Your task to perform on an android device: Go to battery settings Image 0: 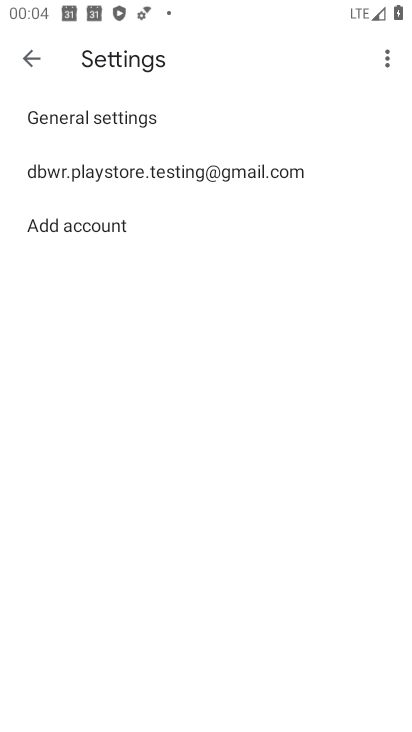
Step 0: press home button
Your task to perform on an android device: Go to battery settings Image 1: 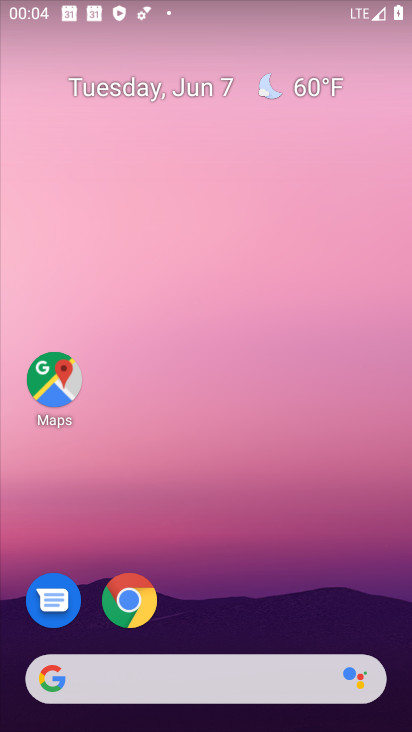
Step 1: drag from (227, 729) to (238, 67)
Your task to perform on an android device: Go to battery settings Image 2: 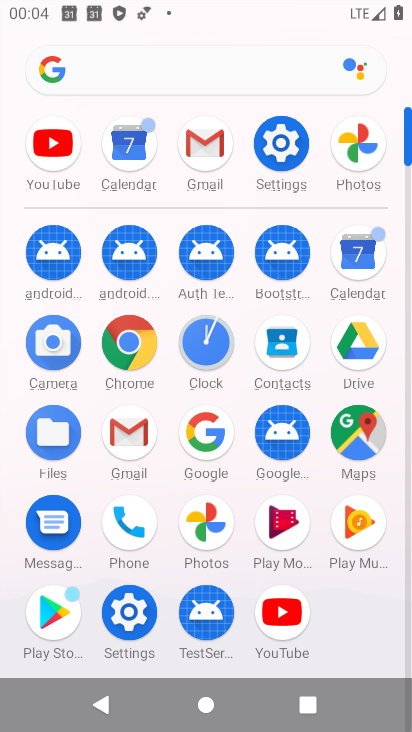
Step 2: click (271, 140)
Your task to perform on an android device: Go to battery settings Image 3: 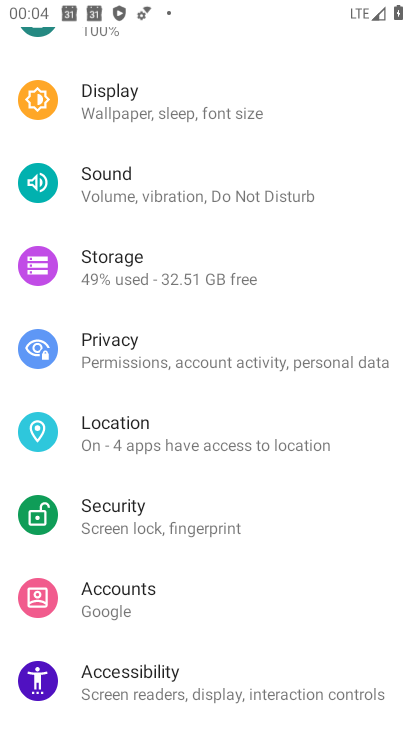
Step 3: drag from (214, 96) to (221, 523)
Your task to perform on an android device: Go to battery settings Image 4: 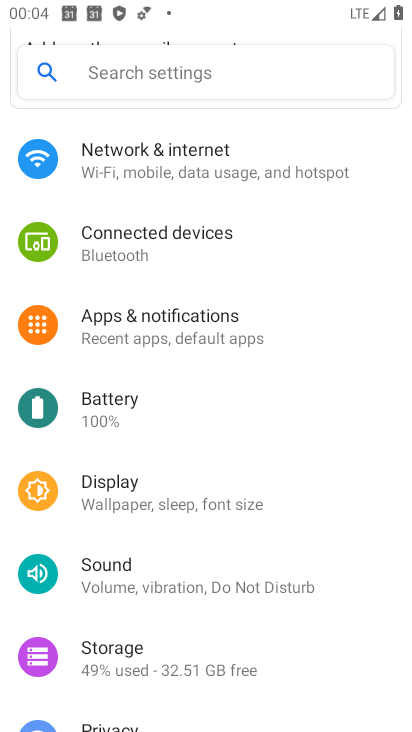
Step 4: click (96, 407)
Your task to perform on an android device: Go to battery settings Image 5: 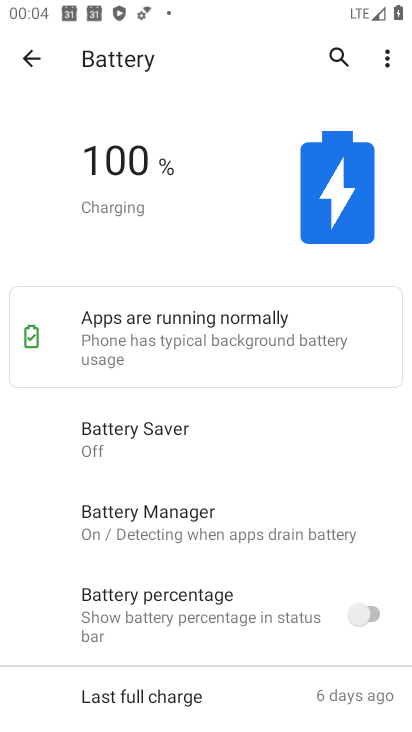
Step 5: task complete